Your task to perform on an android device: add a contact Image 0: 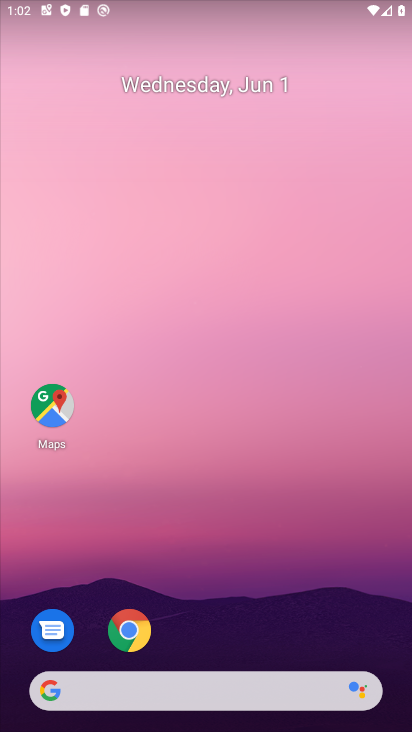
Step 0: press home button
Your task to perform on an android device: add a contact Image 1: 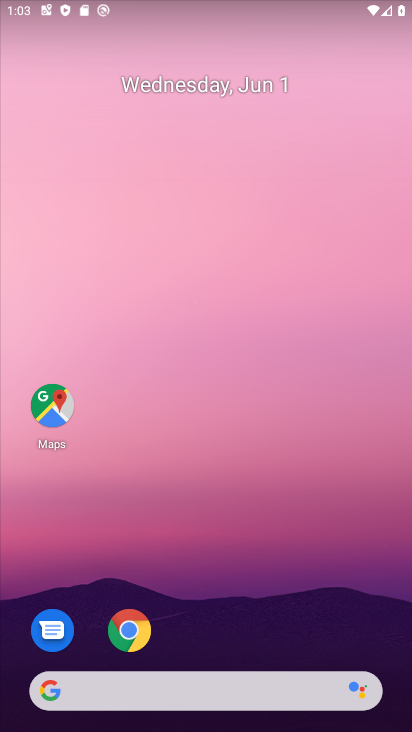
Step 1: drag from (296, 567) to (283, 213)
Your task to perform on an android device: add a contact Image 2: 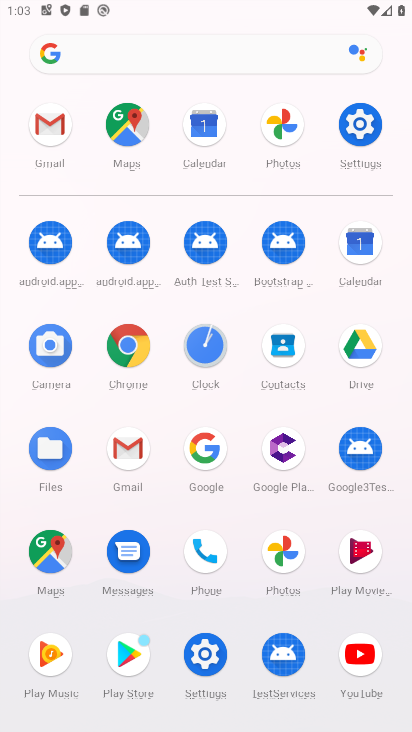
Step 2: click (277, 341)
Your task to perform on an android device: add a contact Image 3: 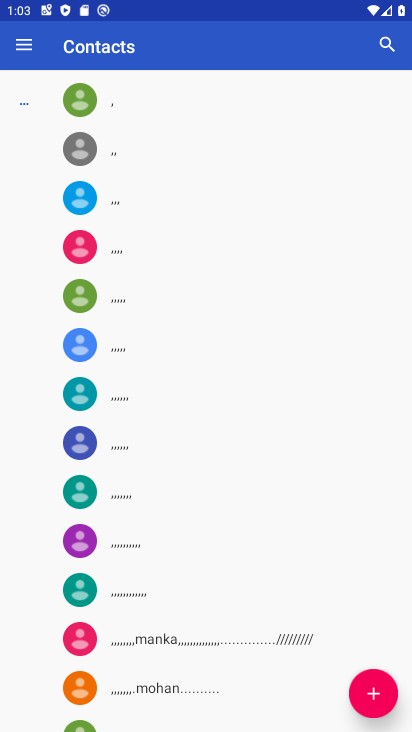
Step 3: click (378, 692)
Your task to perform on an android device: add a contact Image 4: 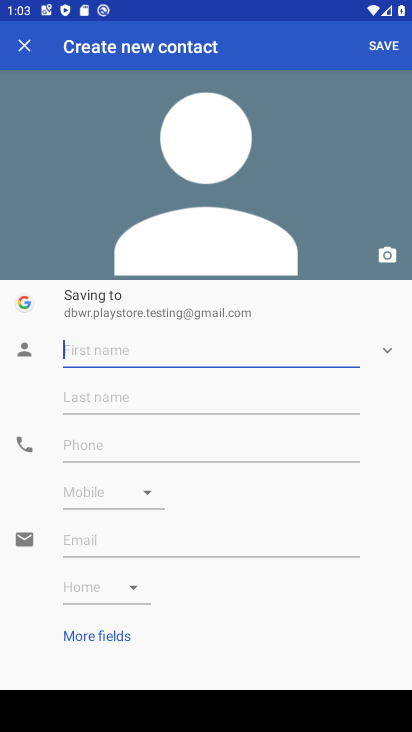
Step 4: type "bvbvbvbvb"
Your task to perform on an android device: add a contact Image 5: 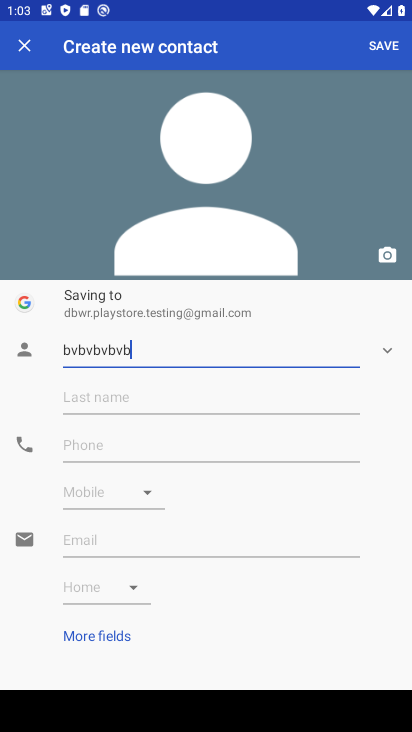
Step 5: click (132, 440)
Your task to perform on an android device: add a contact Image 6: 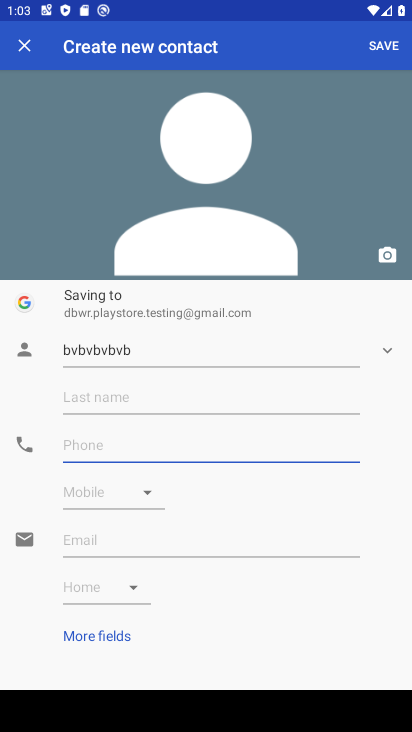
Step 6: type "43343434"
Your task to perform on an android device: add a contact Image 7: 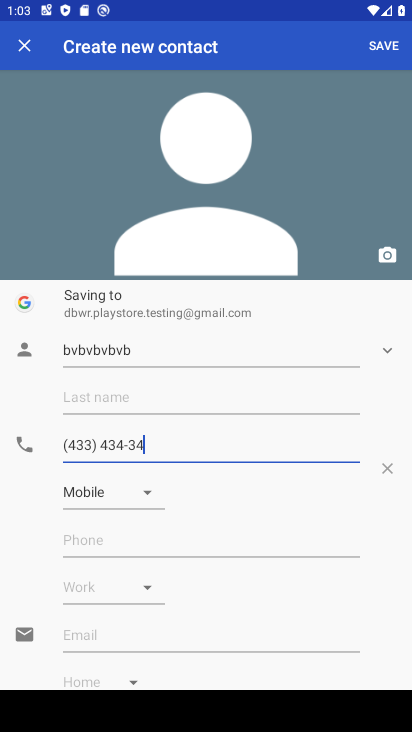
Step 7: click (380, 50)
Your task to perform on an android device: add a contact Image 8: 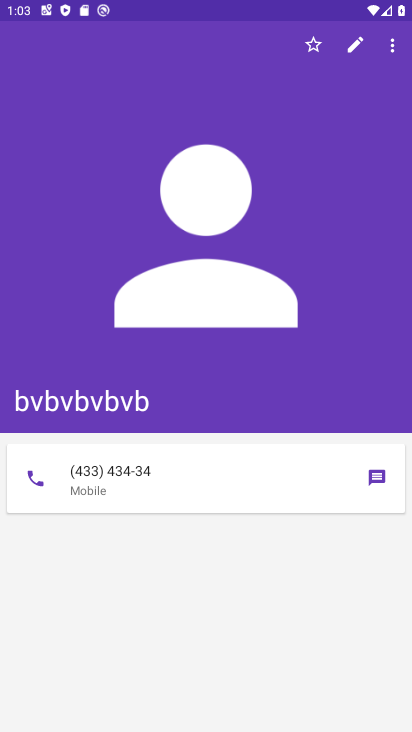
Step 8: task complete